Your task to perform on an android device: turn pop-ups on in chrome Image 0: 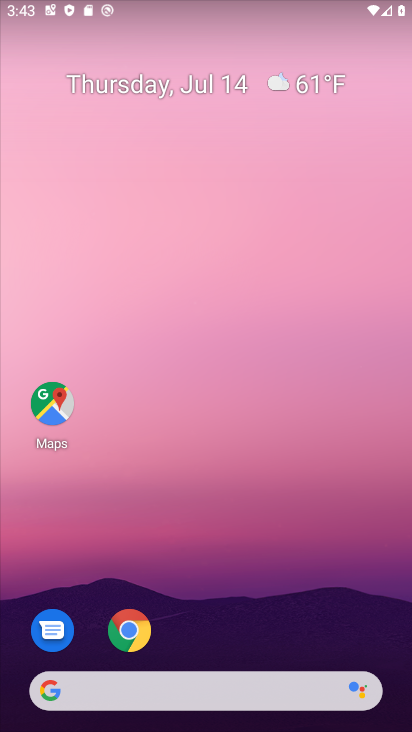
Step 0: click (142, 639)
Your task to perform on an android device: turn pop-ups on in chrome Image 1: 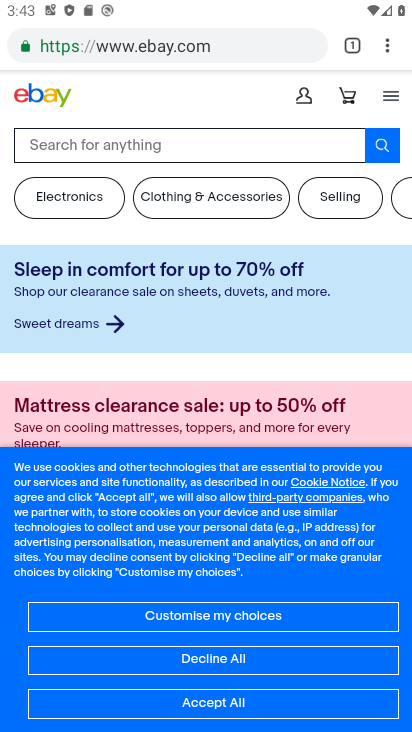
Step 1: click (384, 42)
Your task to perform on an android device: turn pop-ups on in chrome Image 2: 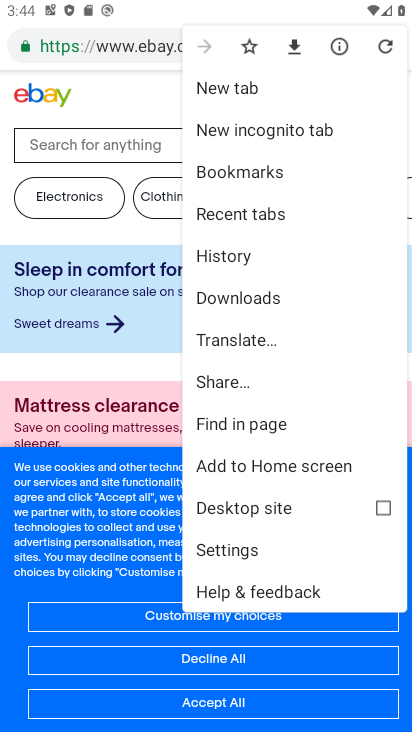
Step 2: click (271, 546)
Your task to perform on an android device: turn pop-ups on in chrome Image 3: 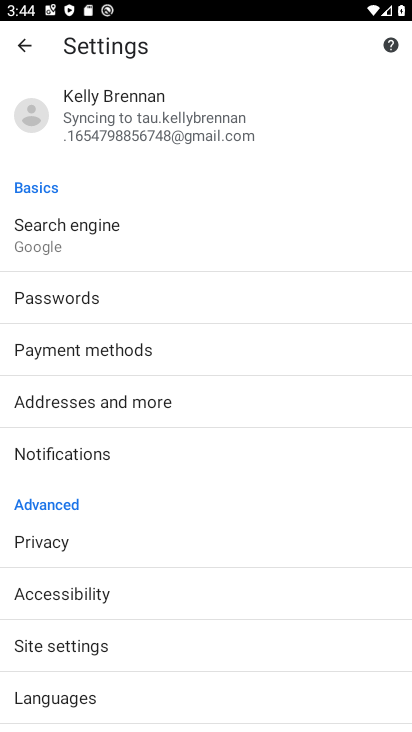
Step 3: click (163, 636)
Your task to perform on an android device: turn pop-ups on in chrome Image 4: 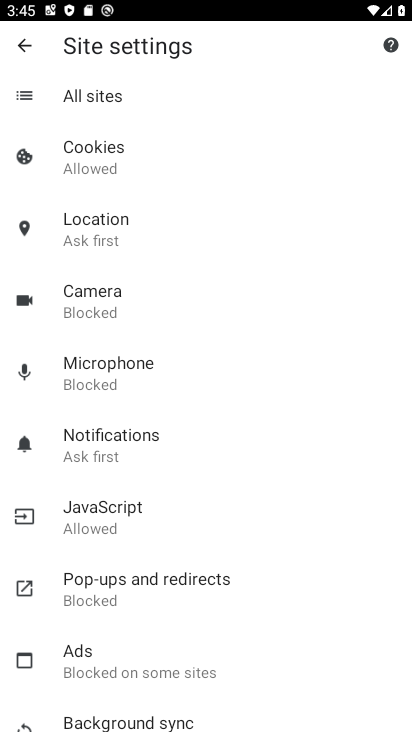
Step 4: click (199, 578)
Your task to perform on an android device: turn pop-ups on in chrome Image 5: 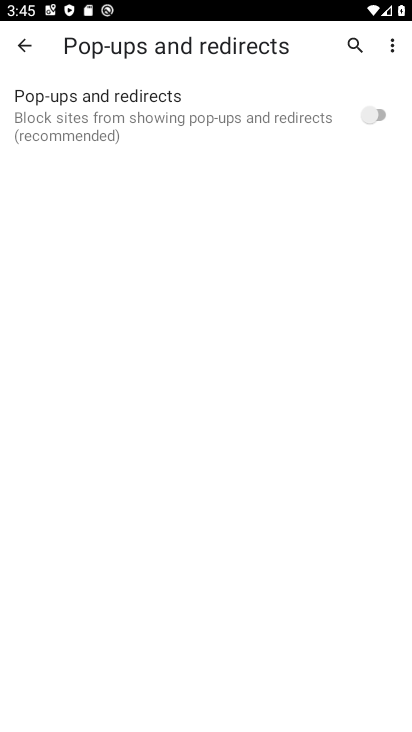
Step 5: click (372, 112)
Your task to perform on an android device: turn pop-ups on in chrome Image 6: 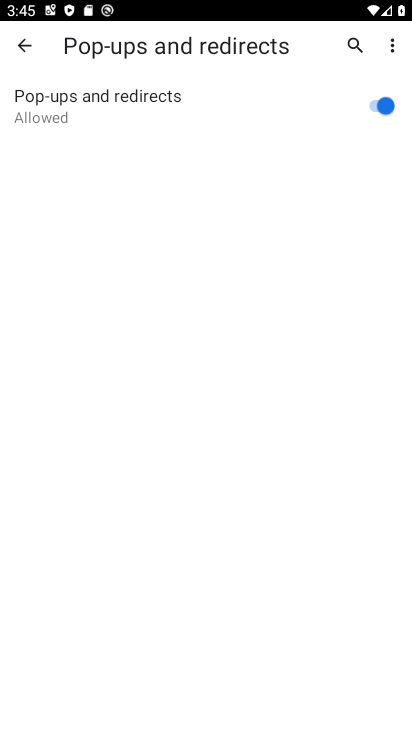
Step 6: task complete